Your task to perform on an android device: Open Maps and search for coffee Image 0: 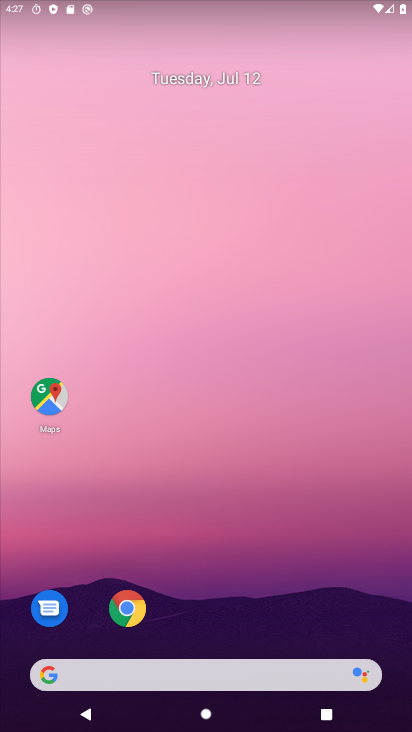
Step 0: click (48, 397)
Your task to perform on an android device: Open Maps and search for coffee Image 1: 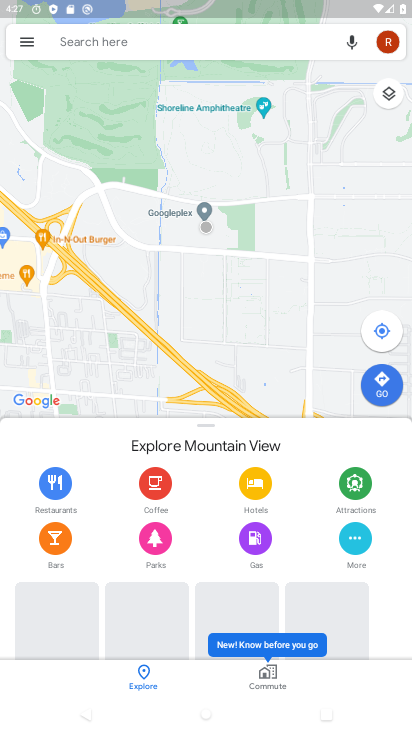
Step 1: click (219, 50)
Your task to perform on an android device: Open Maps and search for coffee Image 2: 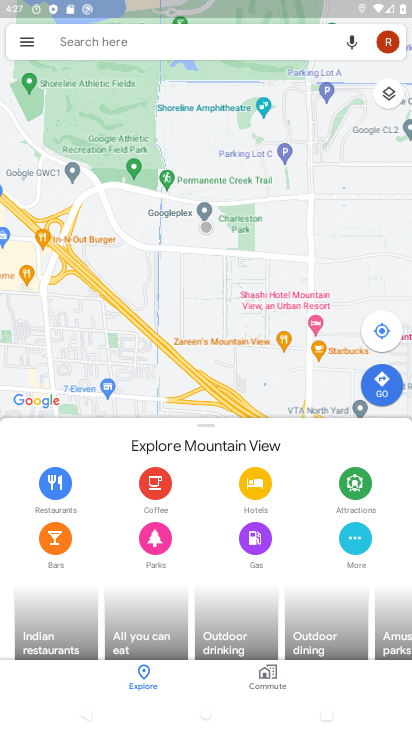
Step 2: click (107, 39)
Your task to perform on an android device: Open Maps and search for coffee Image 3: 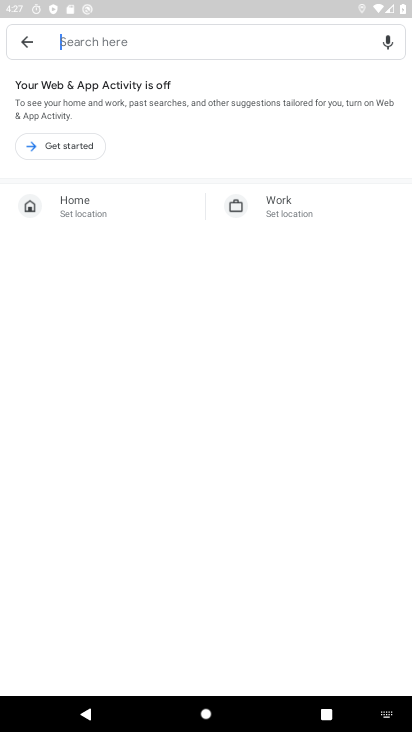
Step 3: click (107, 39)
Your task to perform on an android device: Open Maps and search for coffee Image 4: 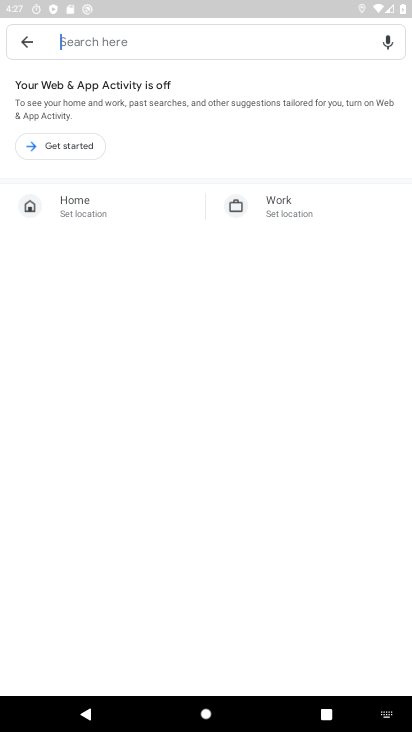
Step 4: type "coffee"
Your task to perform on an android device: Open Maps and search for coffee Image 5: 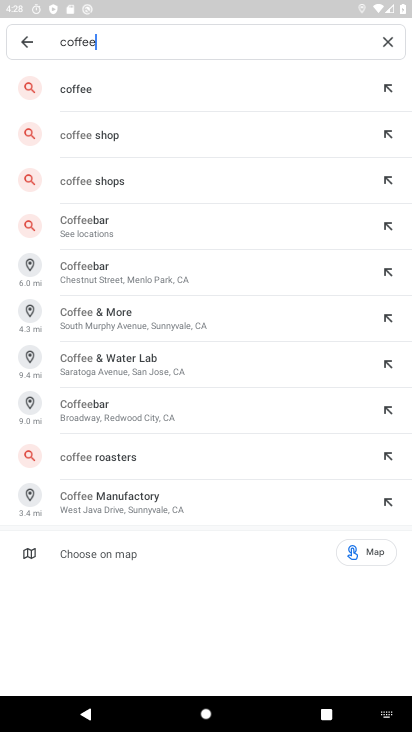
Step 5: click (93, 90)
Your task to perform on an android device: Open Maps and search for coffee Image 6: 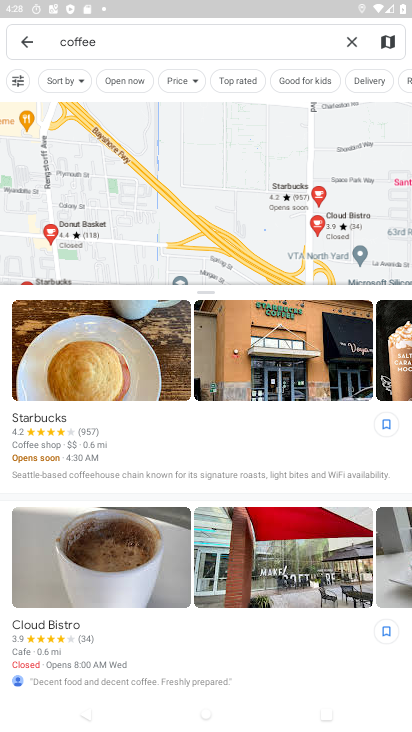
Step 6: task complete